Your task to perform on an android device: check the backup settings in the google photos Image 0: 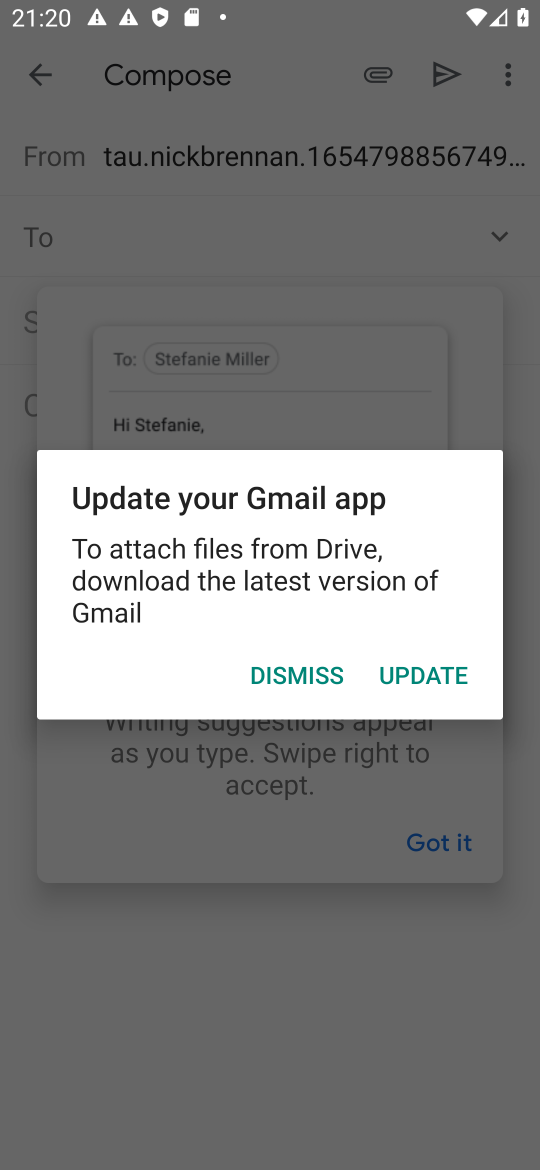
Step 0: press home button
Your task to perform on an android device: check the backup settings in the google photos Image 1: 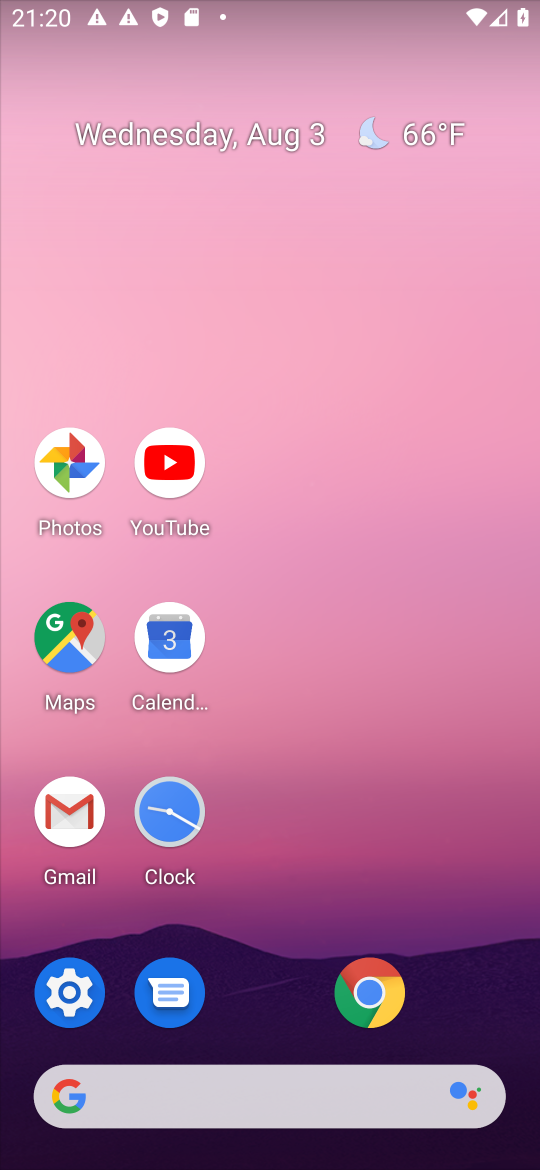
Step 1: click (61, 475)
Your task to perform on an android device: check the backup settings in the google photos Image 2: 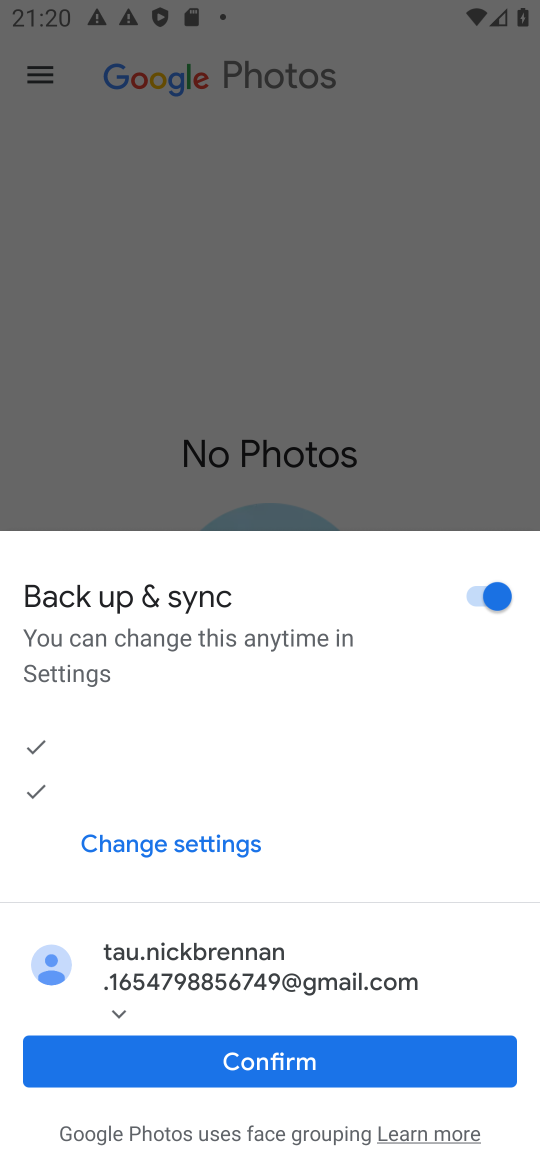
Step 2: click (288, 1053)
Your task to perform on an android device: check the backup settings in the google photos Image 3: 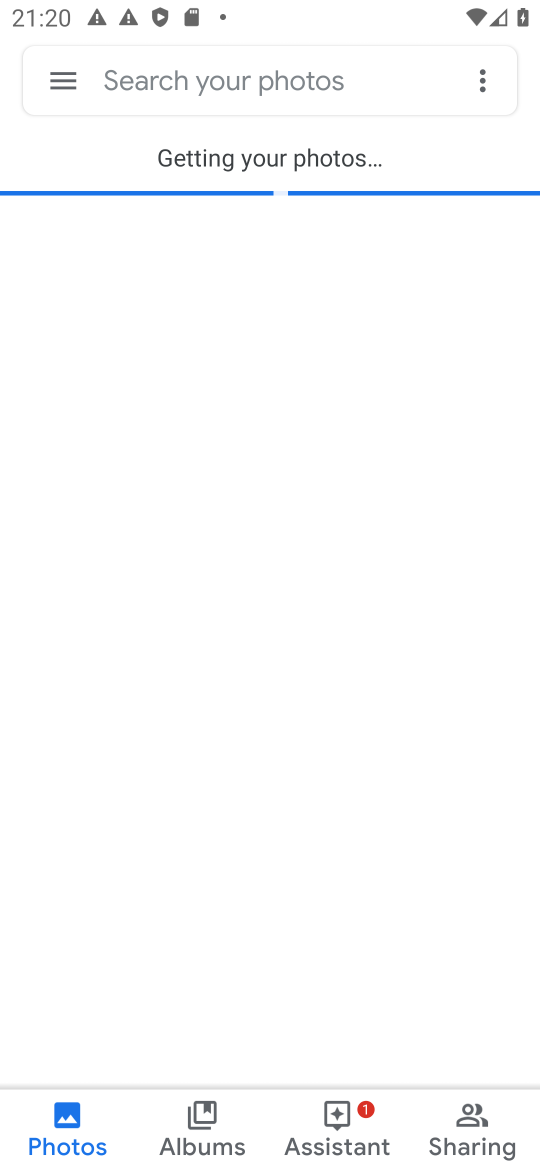
Step 3: click (57, 88)
Your task to perform on an android device: check the backup settings in the google photos Image 4: 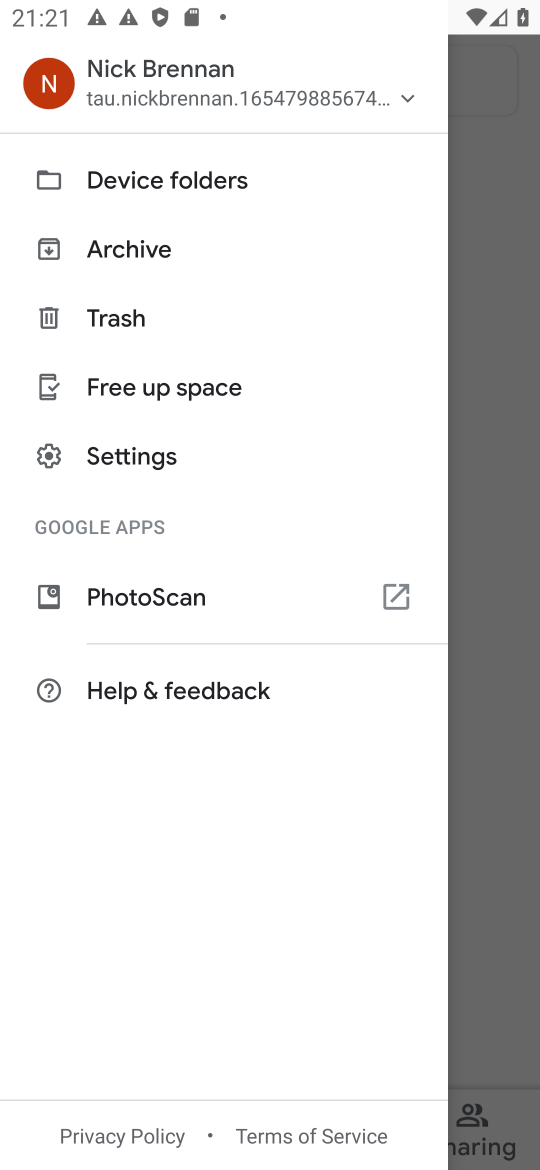
Step 4: click (135, 455)
Your task to perform on an android device: check the backup settings in the google photos Image 5: 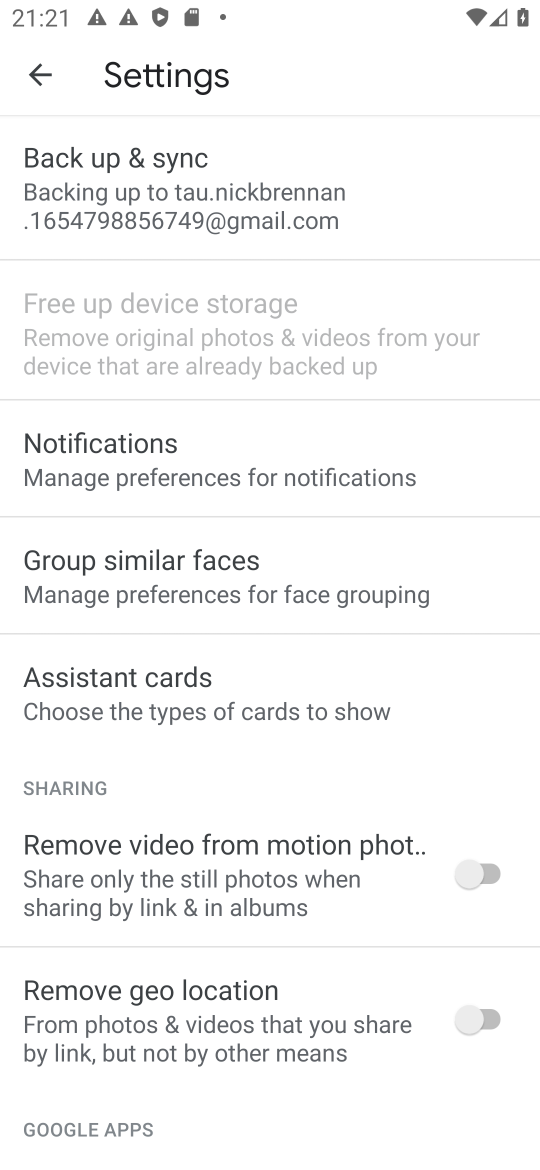
Step 5: click (92, 171)
Your task to perform on an android device: check the backup settings in the google photos Image 6: 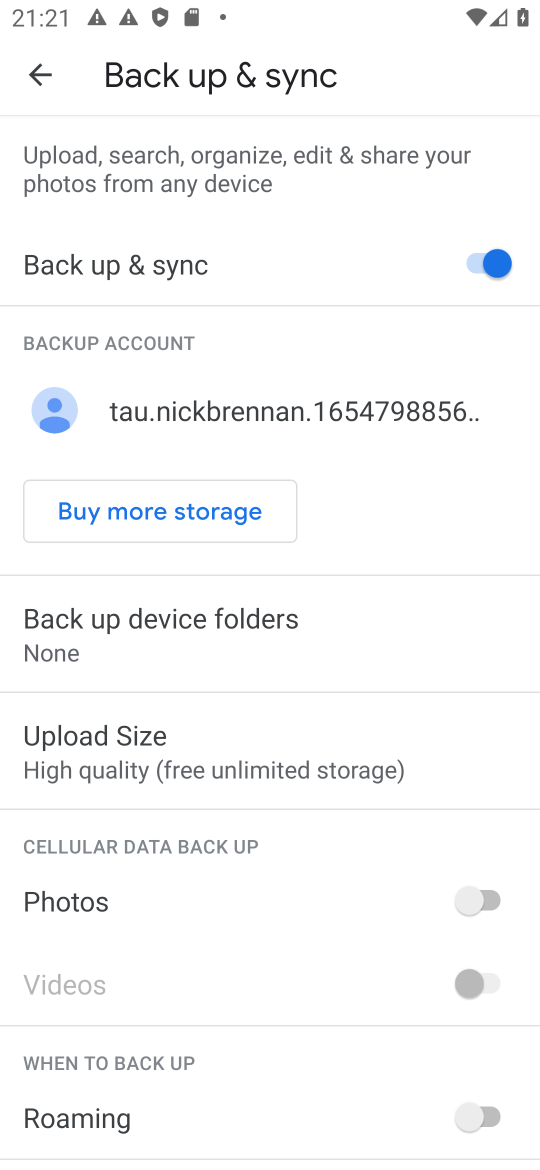
Step 6: click (255, 618)
Your task to perform on an android device: check the backup settings in the google photos Image 7: 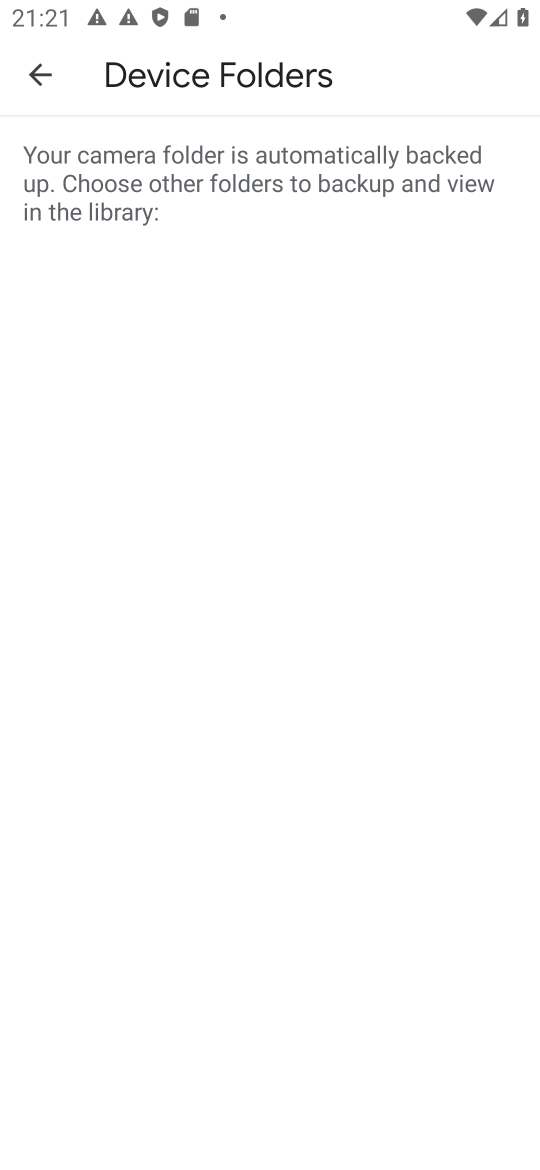
Step 7: task complete